Your task to perform on an android device: turn on translation in the chrome app Image 0: 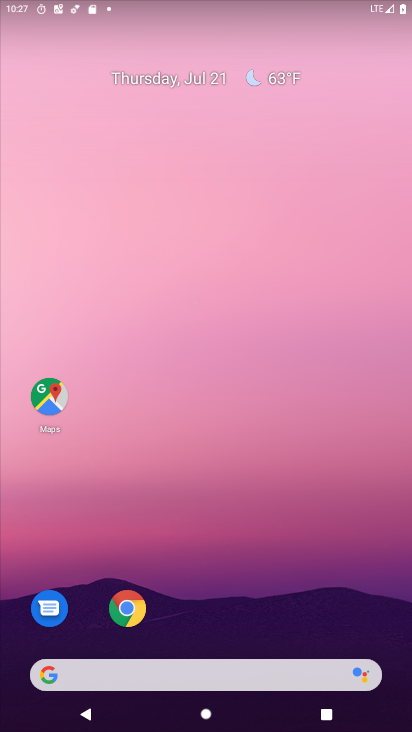
Step 0: drag from (163, 723) to (206, 171)
Your task to perform on an android device: turn on translation in the chrome app Image 1: 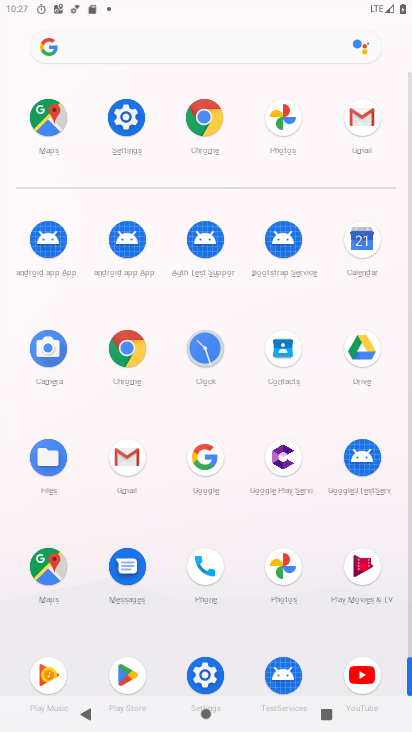
Step 1: click (210, 146)
Your task to perform on an android device: turn on translation in the chrome app Image 2: 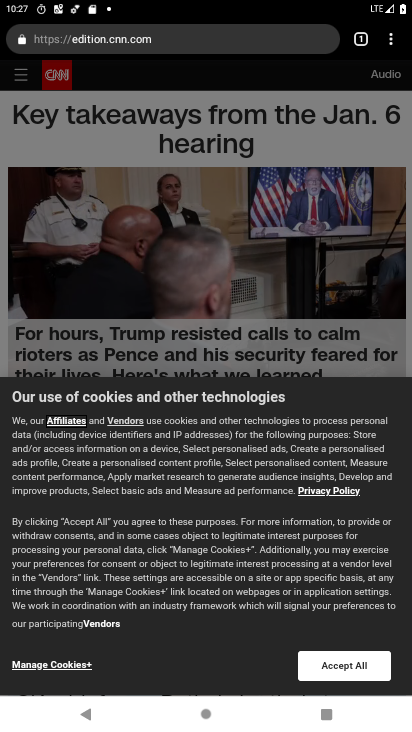
Step 2: click (394, 50)
Your task to perform on an android device: turn on translation in the chrome app Image 3: 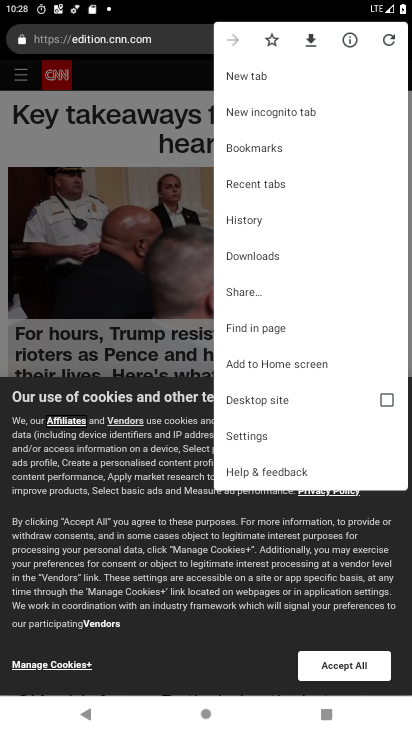
Step 3: task complete